Your task to perform on an android device: turn off translation in the chrome app Image 0: 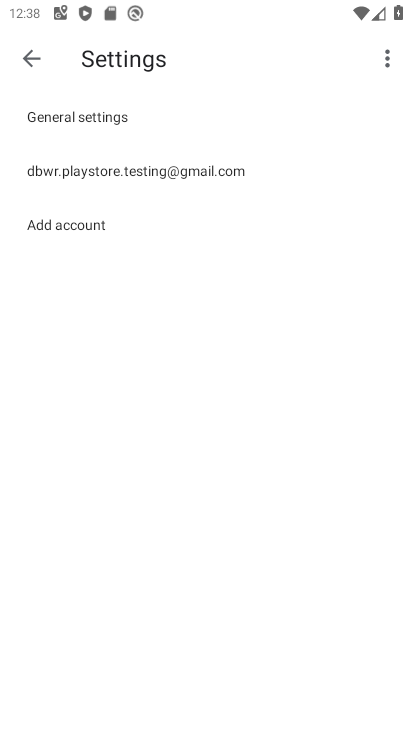
Step 0: press home button
Your task to perform on an android device: turn off translation in the chrome app Image 1: 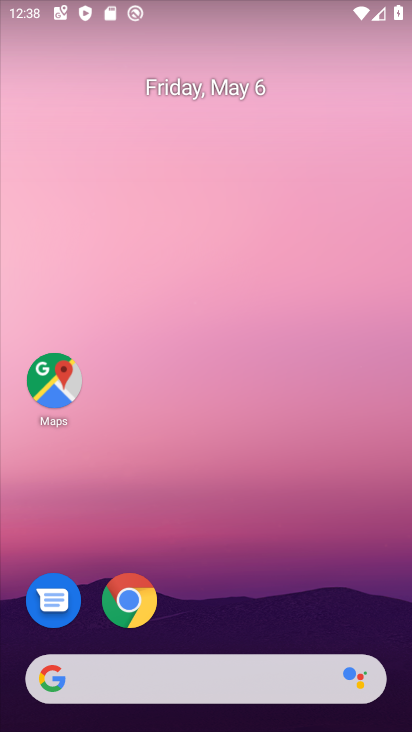
Step 1: drag from (350, 625) to (321, 58)
Your task to perform on an android device: turn off translation in the chrome app Image 2: 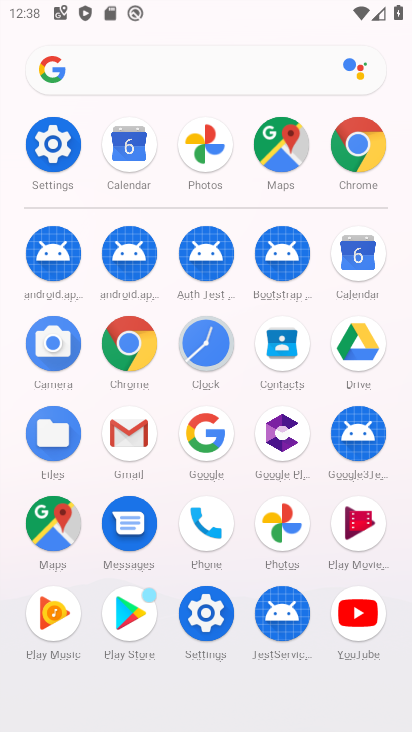
Step 2: click (349, 142)
Your task to perform on an android device: turn off translation in the chrome app Image 3: 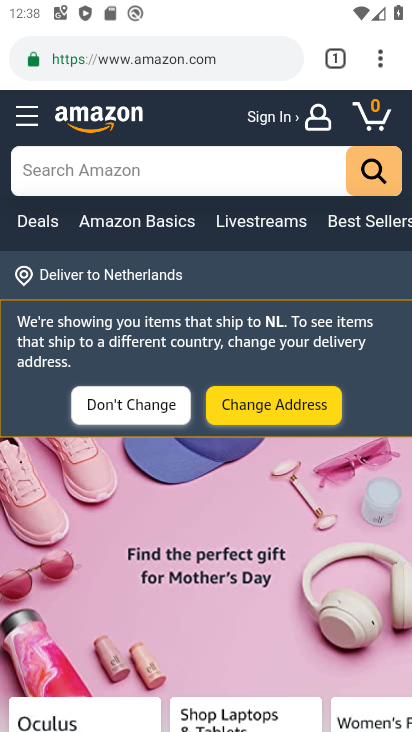
Step 3: press back button
Your task to perform on an android device: turn off translation in the chrome app Image 4: 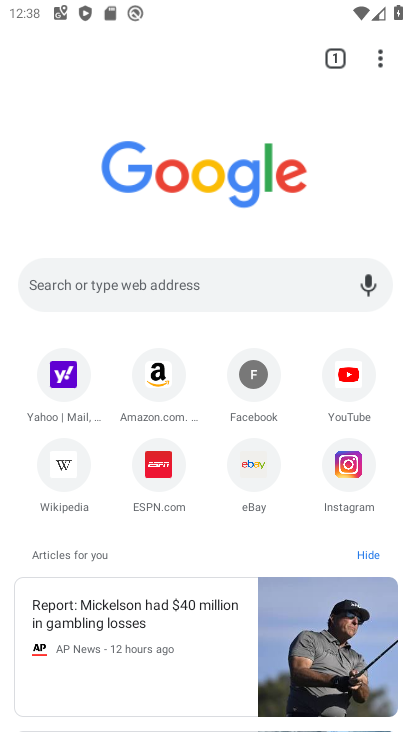
Step 4: click (383, 57)
Your task to perform on an android device: turn off translation in the chrome app Image 5: 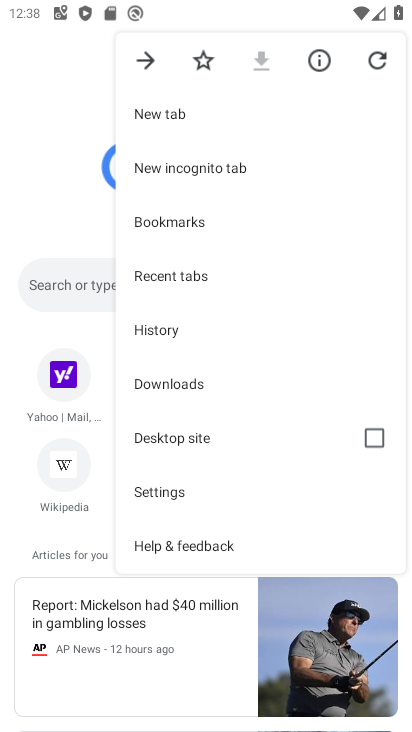
Step 5: click (271, 488)
Your task to perform on an android device: turn off translation in the chrome app Image 6: 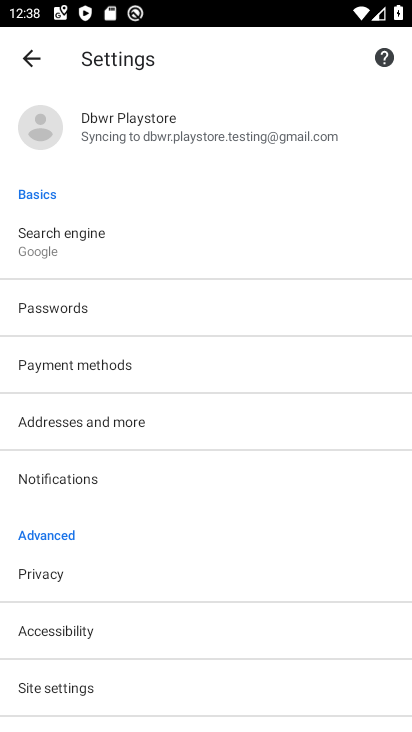
Step 6: drag from (192, 687) to (225, 569)
Your task to perform on an android device: turn off translation in the chrome app Image 7: 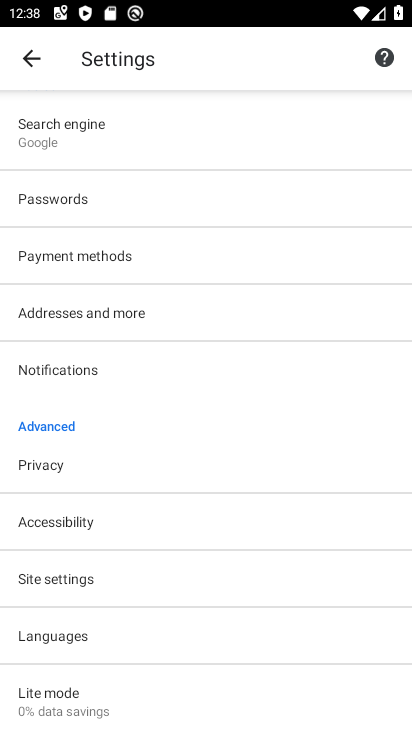
Step 7: click (182, 636)
Your task to perform on an android device: turn off translation in the chrome app Image 8: 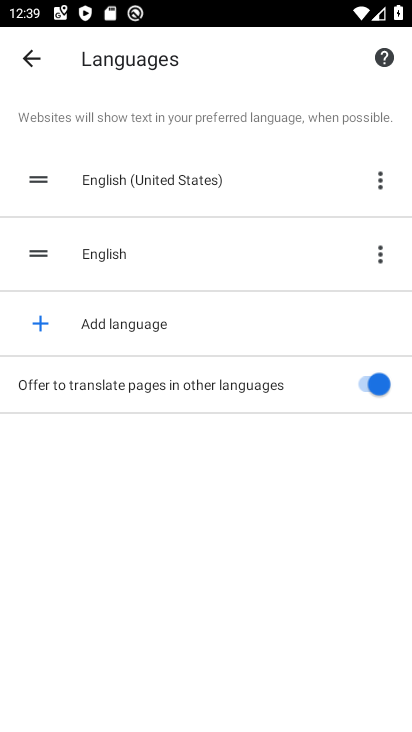
Step 8: click (361, 389)
Your task to perform on an android device: turn off translation in the chrome app Image 9: 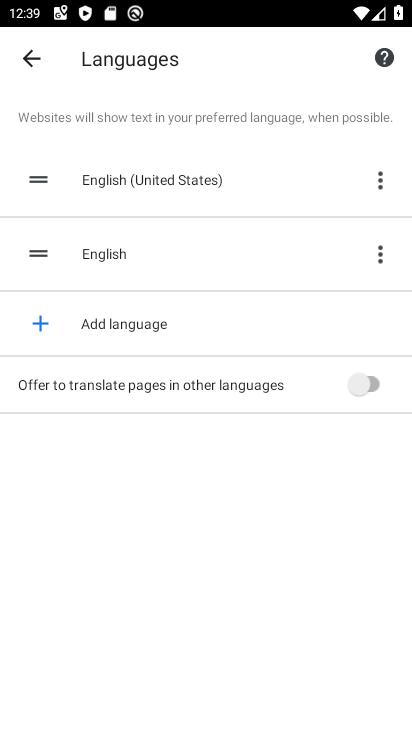
Step 9: task complete